Your task to perform on an android device: check android version Image 0: 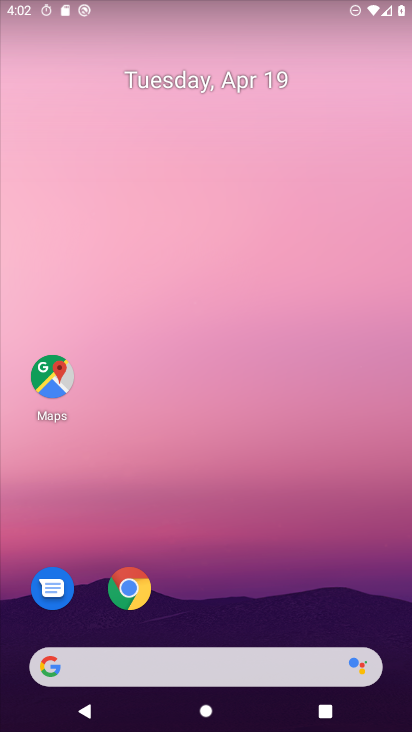
Step 0: drag from (217, 558) to (215, 10)
Your task to perform on an android device: check android version Image 1: 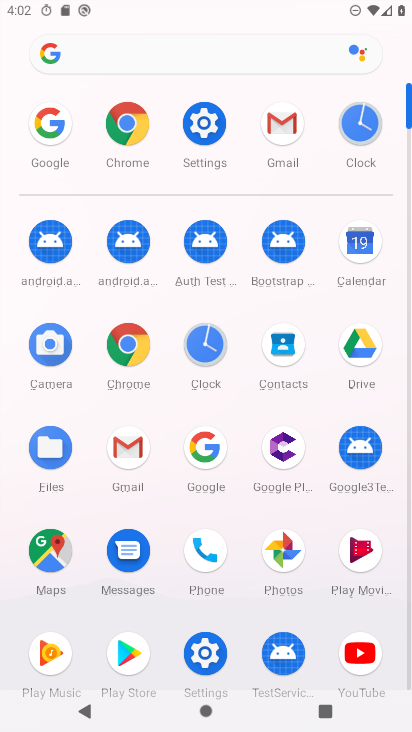
Step 1: click (206, 126)
Your task to perform on an android device: check android version Image 2: 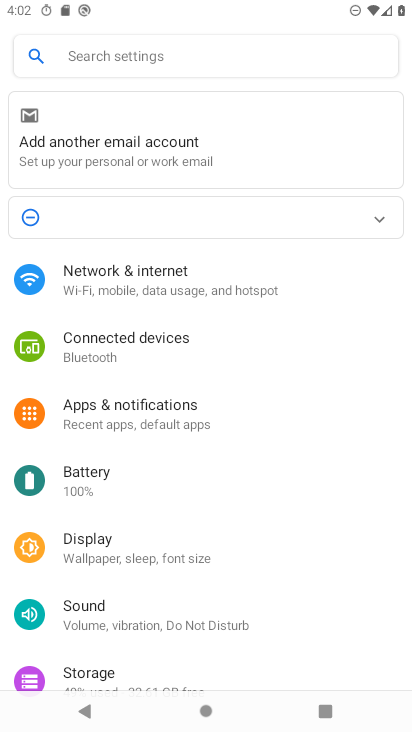
Step 2: drag from (225, 550) to (213, 221)
Your task to perform on an android device: check android version Image 3: 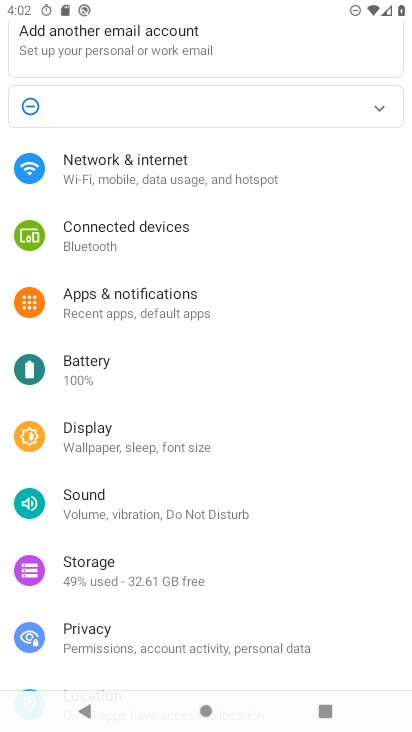
Step 3: drag from (213, 575) to (236, 199)
Your task to perform on an android device: check android version Image 4: 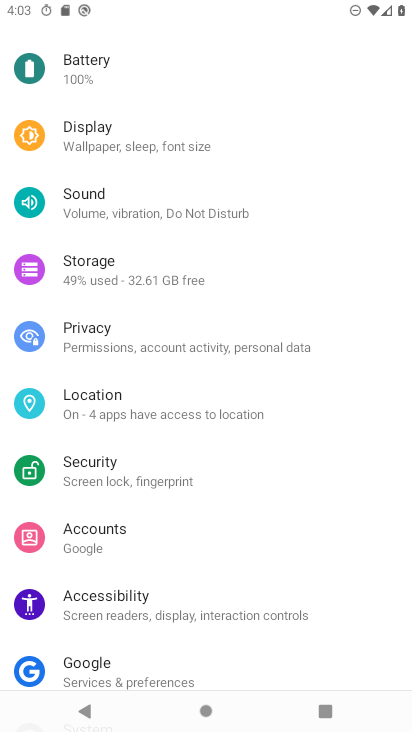
Step 4: drag from (262, 467) to (284, 173)
Your task to perform on an android device: check android version Image 5: 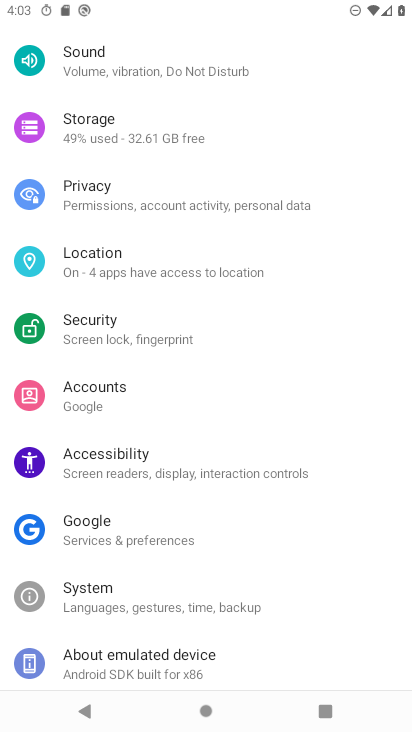
Step 5: drag from (234, 546) to (244, 179)
Your task to perform on an android device: check android version Image 6: 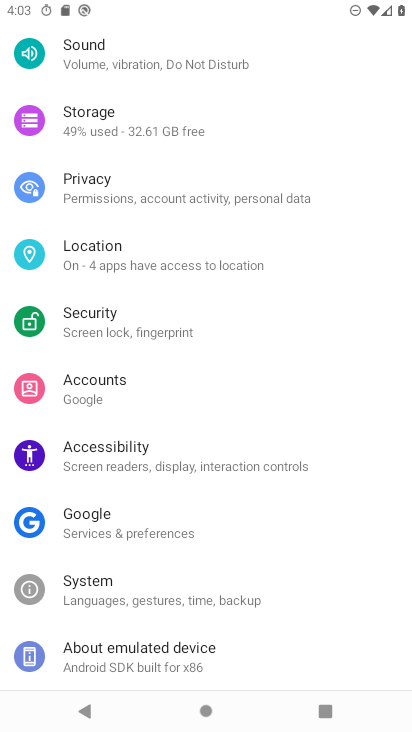
Step 6: click (198, 659)
Your task to perform on an android device: check android version Image 7: 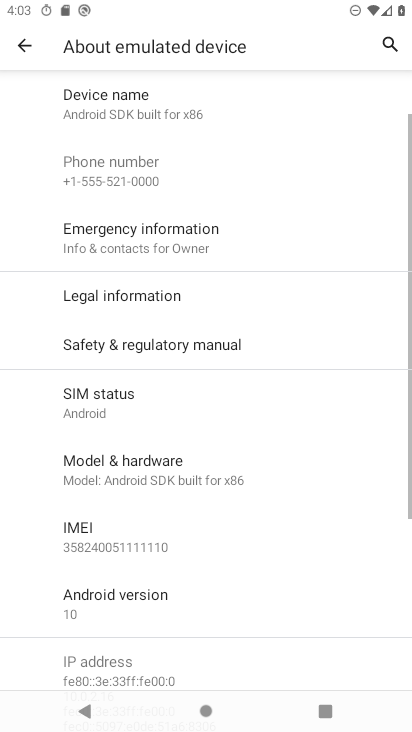
Step 7: click (204, 598)
Your task to perform on an android device: check android version Image 8: 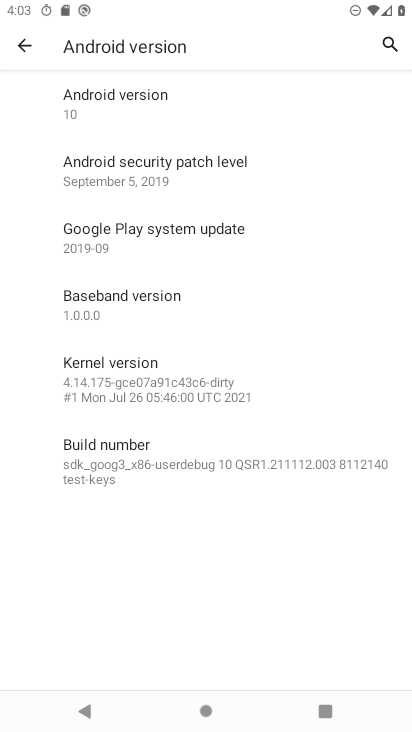
Step 8: task complete